Your task to perform on an android device: Search for Italian restaurants on Maps Image 0: 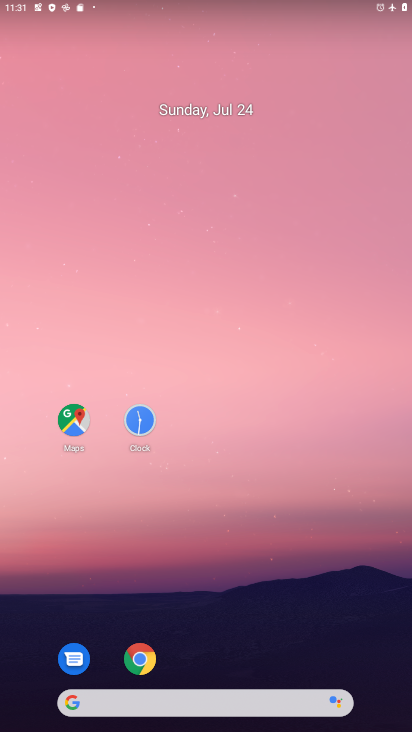
Step 0: click (75, 410)
Your task to perform on an android device: Search for Italian restaurants on Maps Image 1: 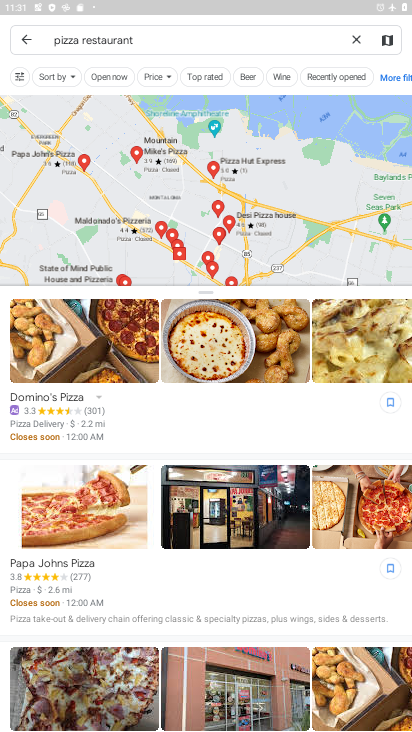
Step 1: click (358, 36)
Your task to perform on an android device: Search for Italian restaurants on Maps Image 2: 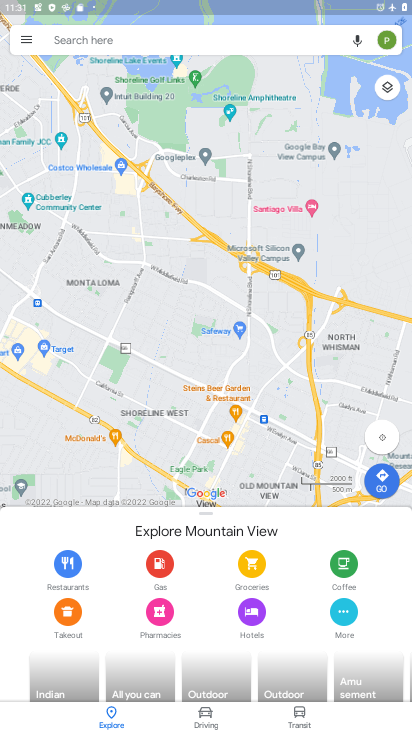
Step 2: click (266, 34)
Your task to perform on an android device: Search for Italian restaurants on Maps Image 3: 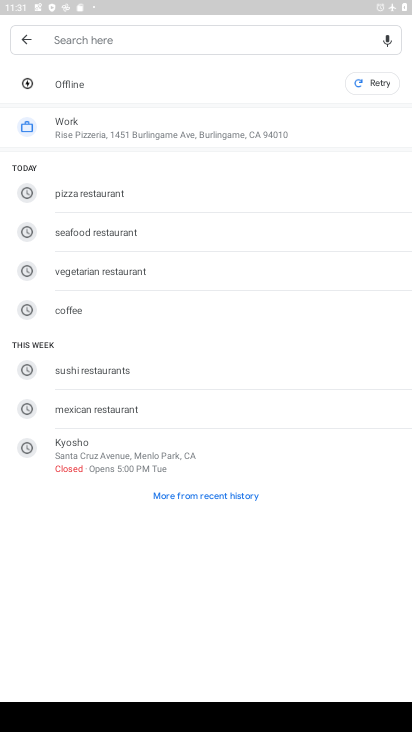
Step 3: type " Italian restaurants"
Your task to perform on an android device: Search for Italian restaurants on Maps Image 4: 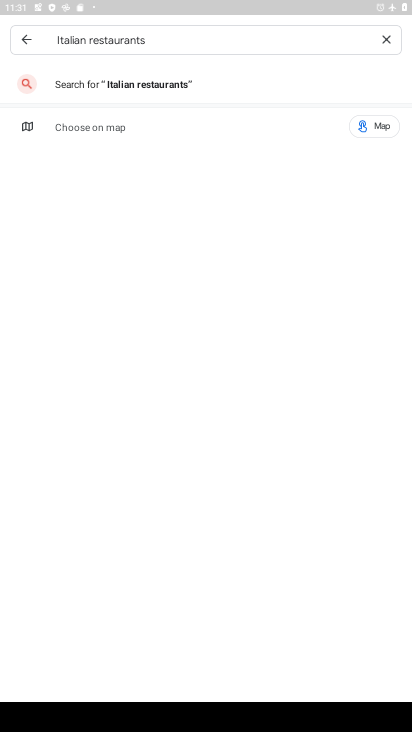
Step 4: click (124, 83)
Your task to perform on an android device: Search for Italian restaurants on Maps Image 5: 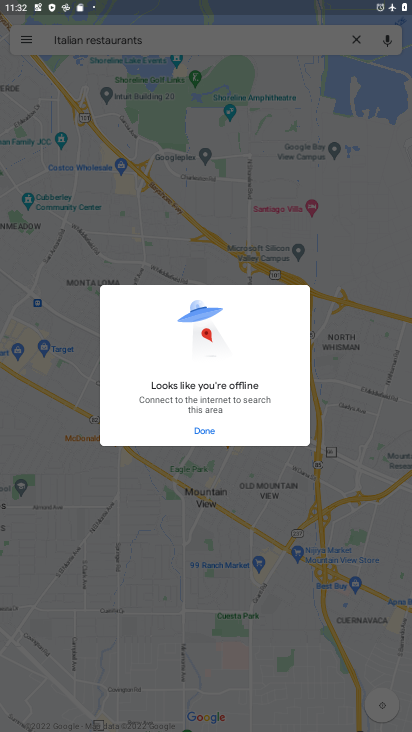
Step 5: task complete